Your task to perform on an android device: Open Reddit.com Image 0: 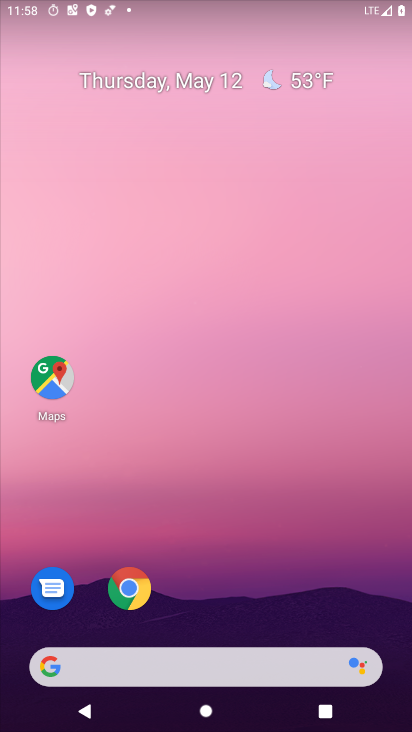
Step 0: click (131, 592)
Your task to perform on an android device: Open Reddit.com Image 1: 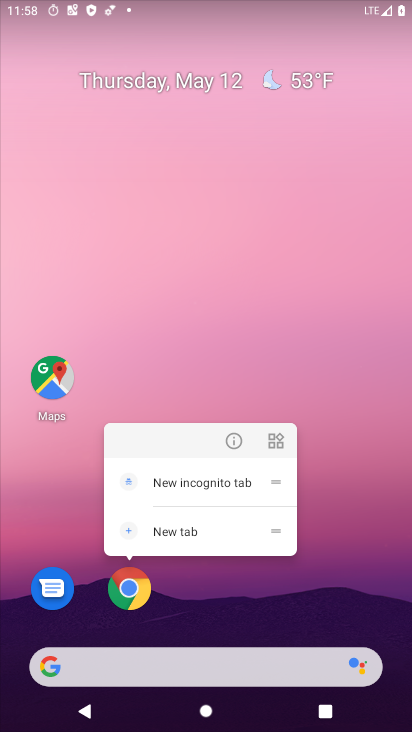
Step 1: click (128, 590)
Your task to perform on an android device: Open Reddit.com Image 2: 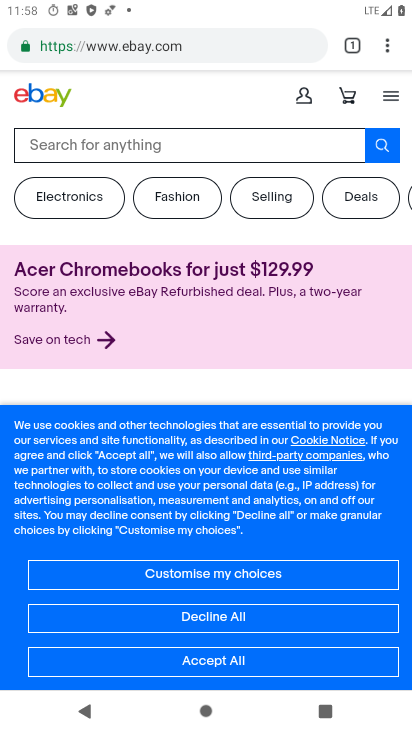
Step 2: click (187, 43)
Your task to perform on an android device: Open Reddit.com Image 3: 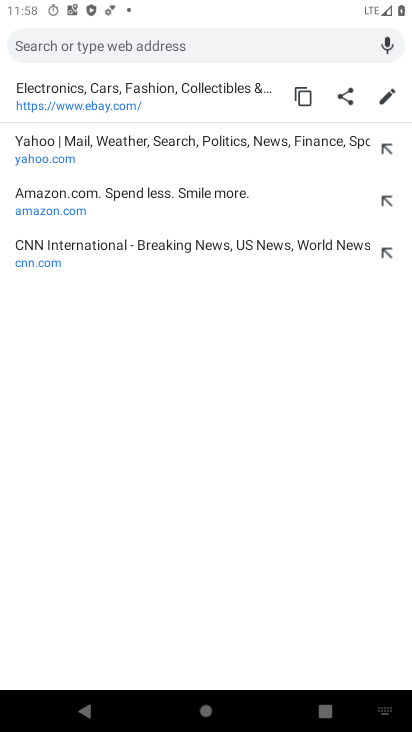
Step 3: type "reddit.com"
Your task to perform on an android device: Open Reddit.com Image 4: 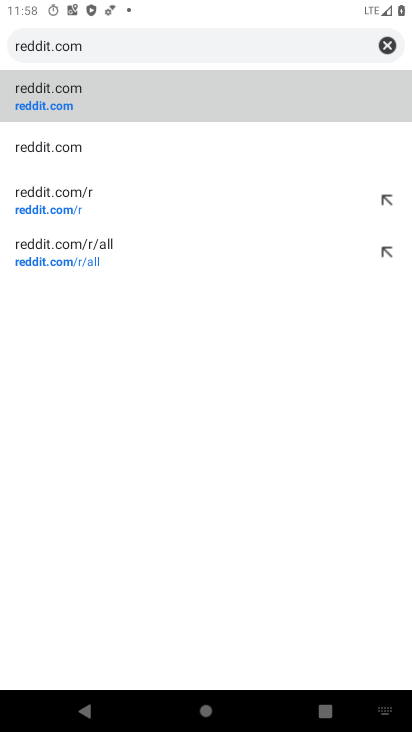
Step 4: click (39, 99)
Your task to perform on an android device: Open Reddit.com Image 5: 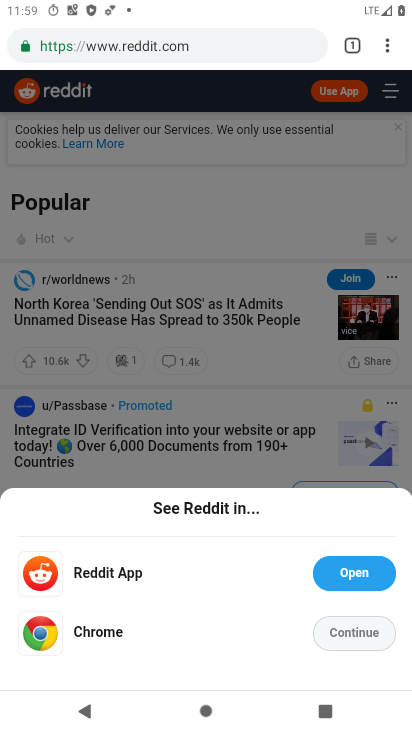
Step 5: task complete